Your task to perform on an android device: turn on the 12-hour format for clock Image 0: 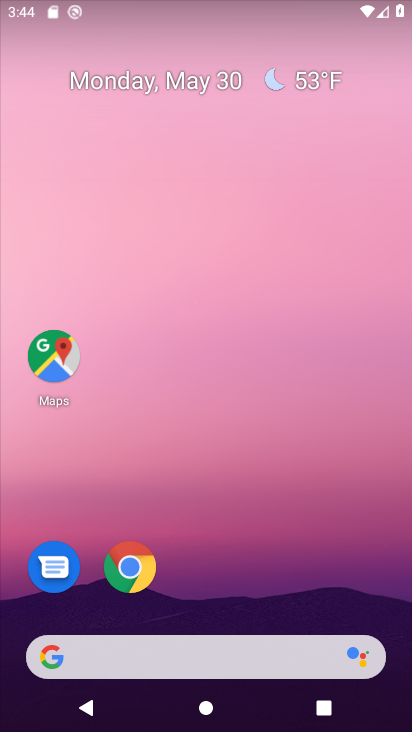
Step 0: drag from (185, 565) to (221, 26)
Your task to perform on an android device: turn on the 12-hour format for clock Image 1: 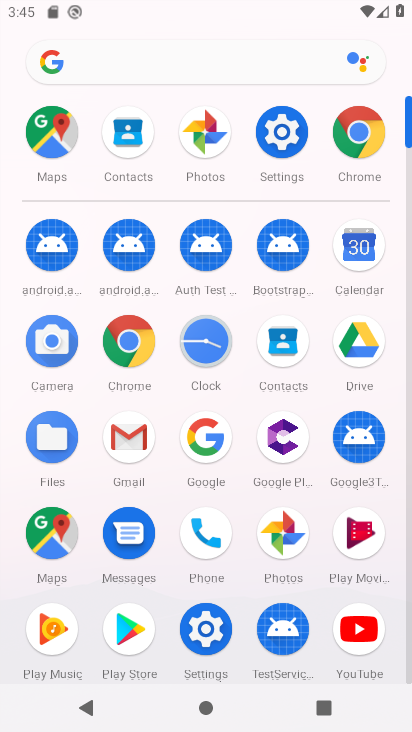
Step 1: click (175, 342)
Your task to perform on an android device: turn on the 12-hour format for clock Image 2: 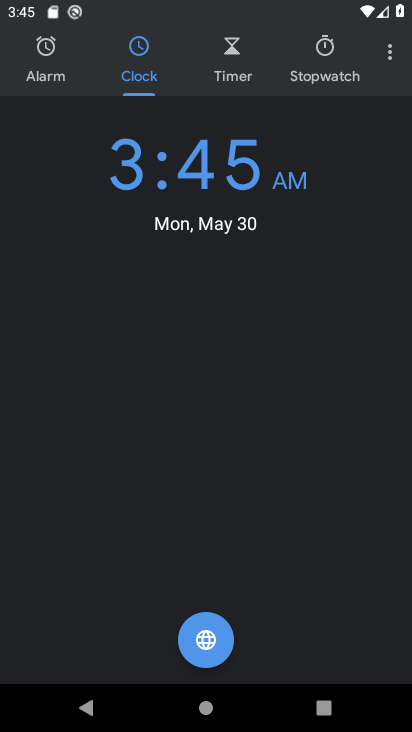
Step 2: click (394, 55)
Your task to perform on an android device: turn on the 12-hour format for clock Image 3: 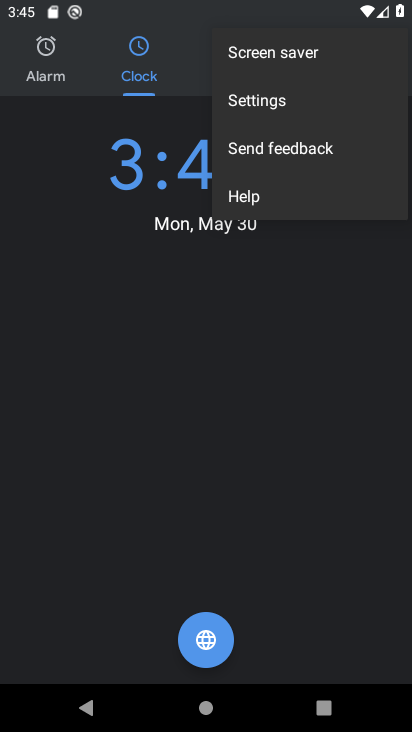
Step 3: click (281, 103)
Your task to perform on an android device: turn on the 12-hour format for clock Image 4: 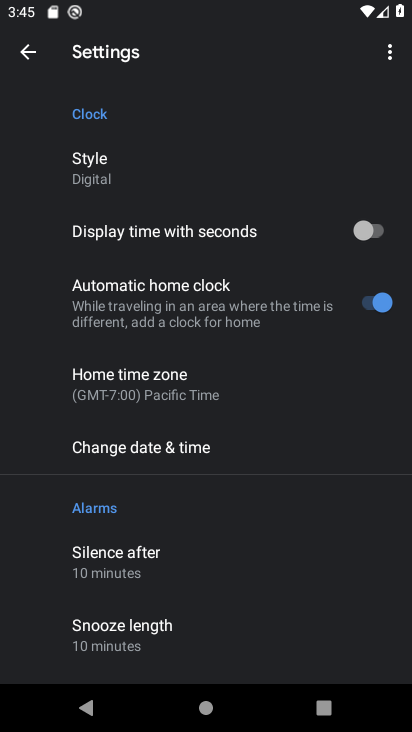
Step 4: click (207, 455)
Your task to perform on an android device: turn on the 12-hour format for clock Image 5: 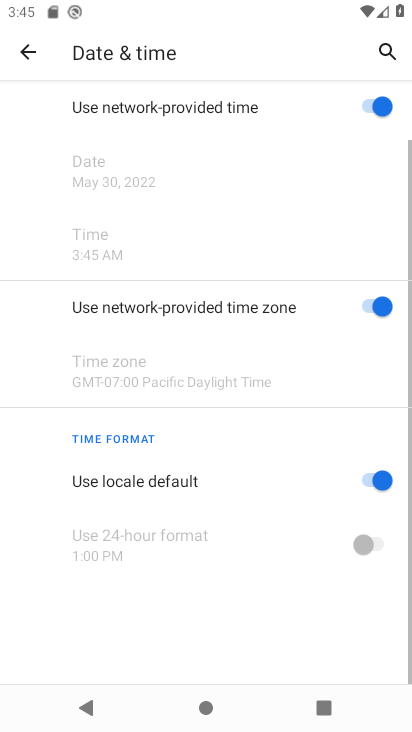
Step 5: drag from (286, 569) to (339, 77)
Your task to perform on an android device: turn on the 12-hour format for clock Image 6: 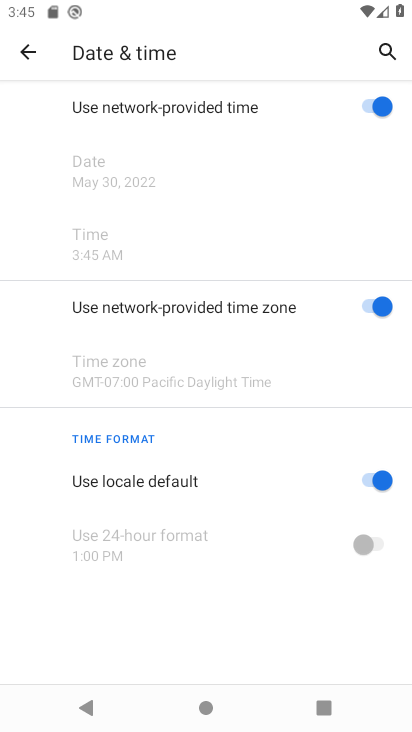
Step 6: click (381, 473)
Your task to perform on an android device: turn on the 12-hour format for clock Image 7: 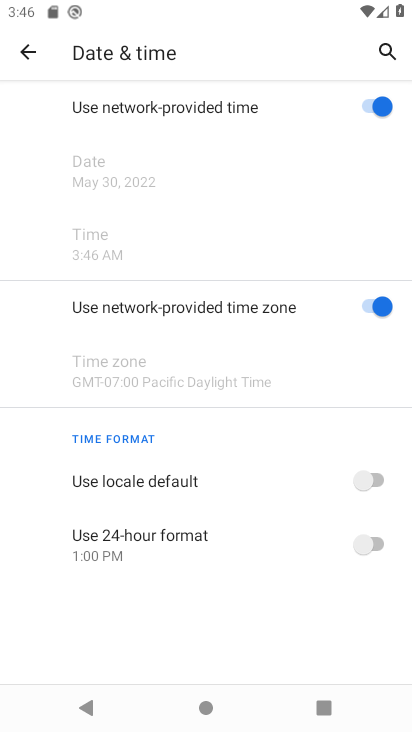
Step 7: task complete